Your task to perform on an android device: Go to location settings Image 0: 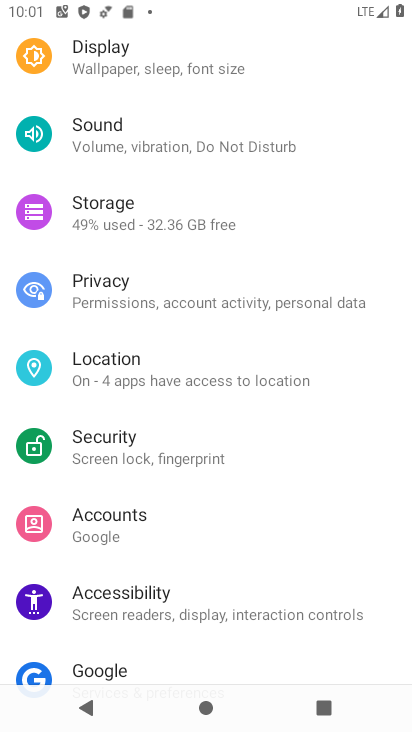
Step 0: click (247, 374)
Your task to perform on an android device: Go to location settings Image 1: 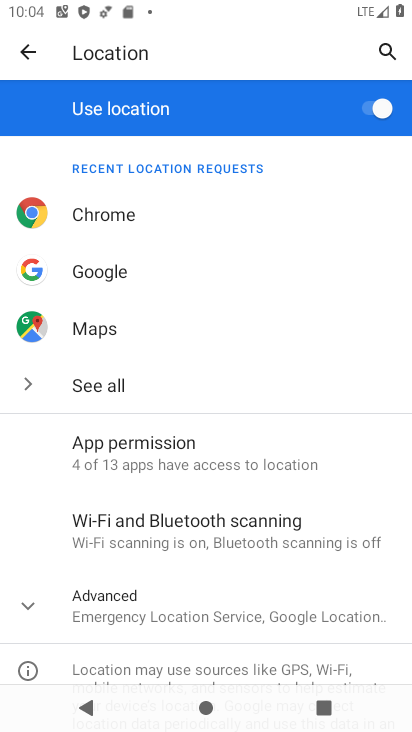
Step 1: click (174, 597)
Your task to perform on an android device: Go to location settings Image 2: 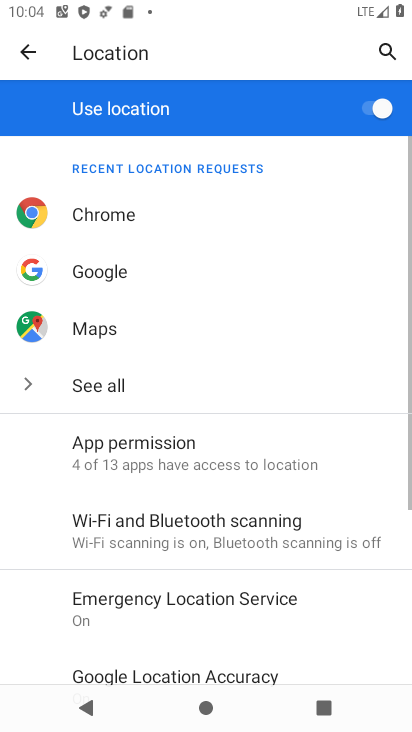
Step 2: task complete